Your task to perform on an android device: turn off priority inbox in the gmail app Image 0: 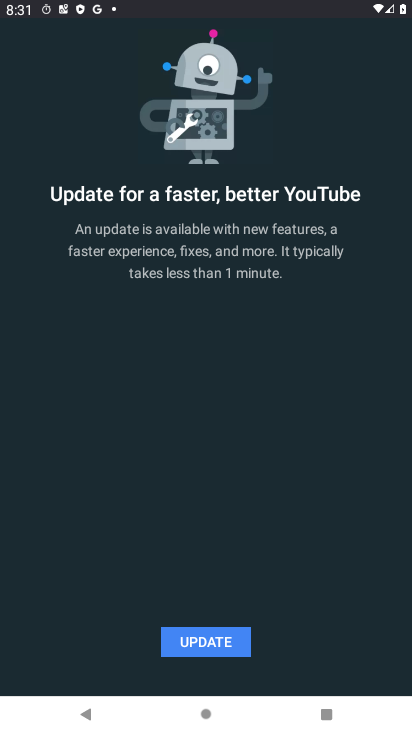
Step 0: press back button
Your task to perform on an android device: turn off priority inbox in the gmail app Image 1: 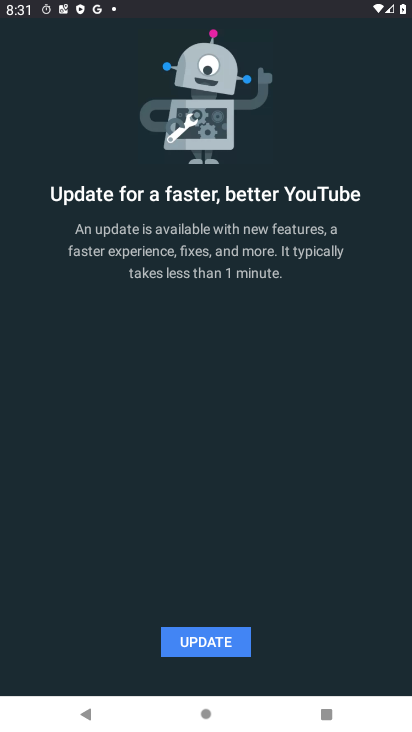
Step 1: press back button
Your task to perform on an android device: turn off priority inbox in the gmail app Image 2: 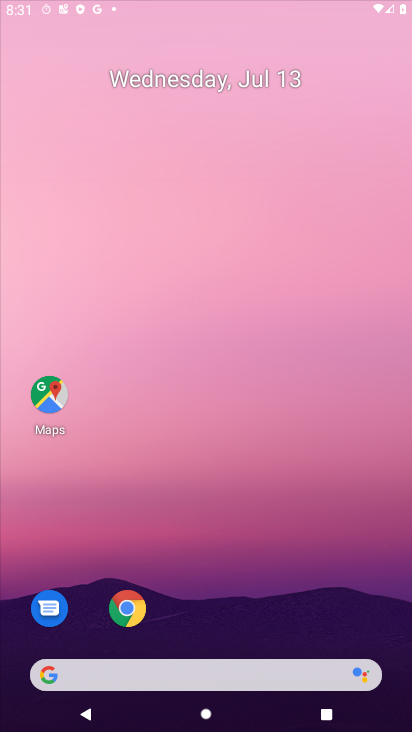
Step 2: press back button
Your task to perform on an android device: turn off priority inbox in the gmail app Image 3: 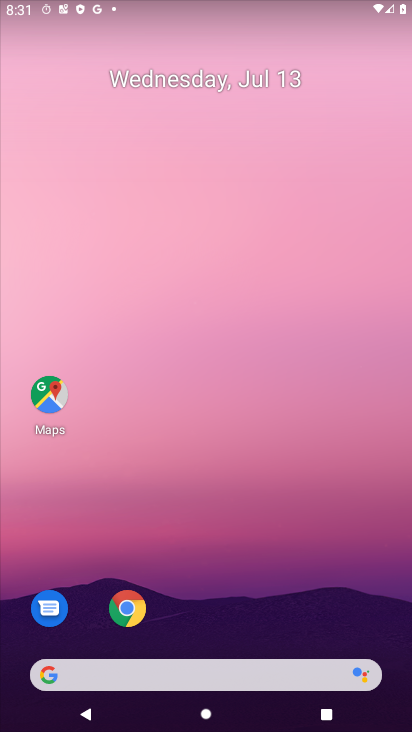
Step 3: drag from (246, 296) to (245, 54)
Your task to perform on an android device: turn off priority inbox in the gmail app Image 4: 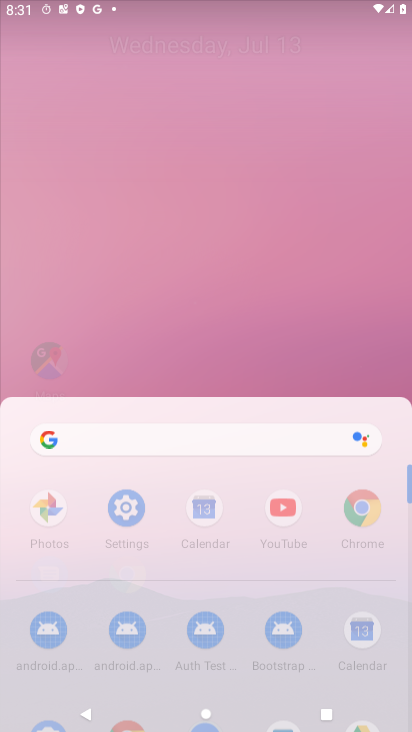
Step 4: drag from (237, 462) to (234, 124)
Your task to perform on an android device: turn off priority inbox in the gmail app Image 5: 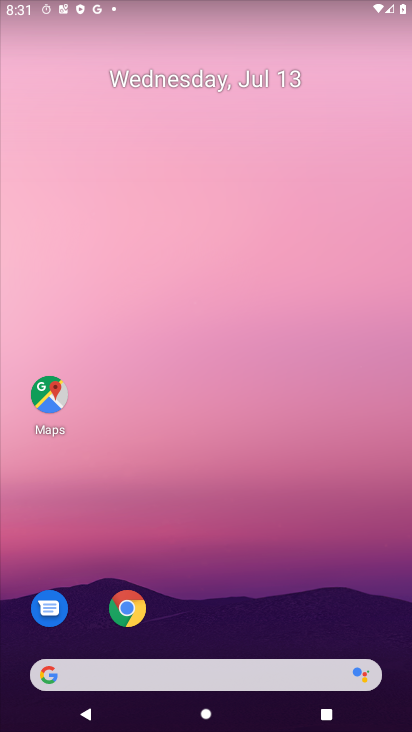
Step 5: drag from (263, 597) to (290, 120)
Your task to perform on an android device: turn off priority inbox in the gmail app Image 6: 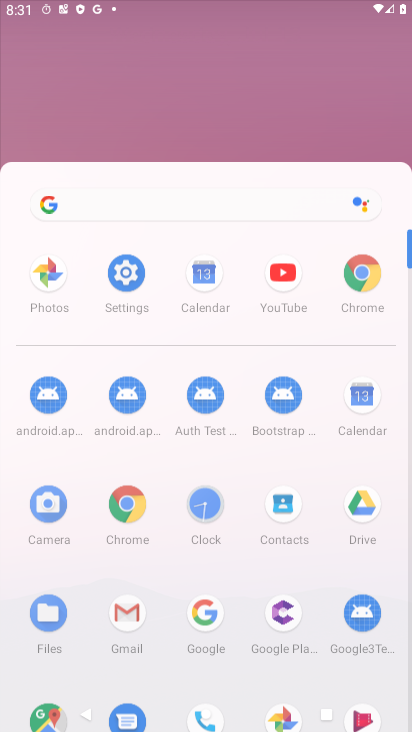
Step 6: drag from (297, 574) to (227, 169)
Your task to perform on an android device: turn off priority inbox in the gmail app Image 7: 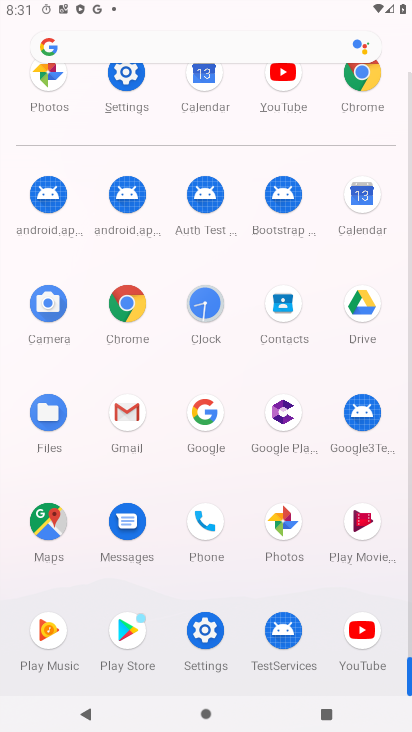
Step 7: click (126, 417)
Your task to perform on an android device: turn off priority inbox in the gmail app Image 8: 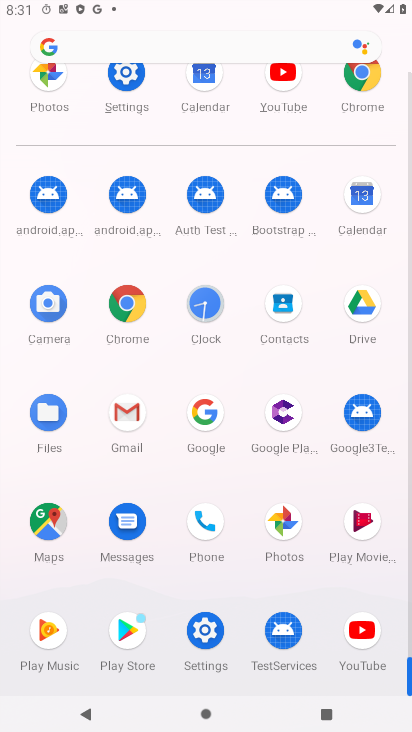
Step 8: click (126, 417)
Your task to perform on an android device: turn off priority inbox in the gmail app Image 9: 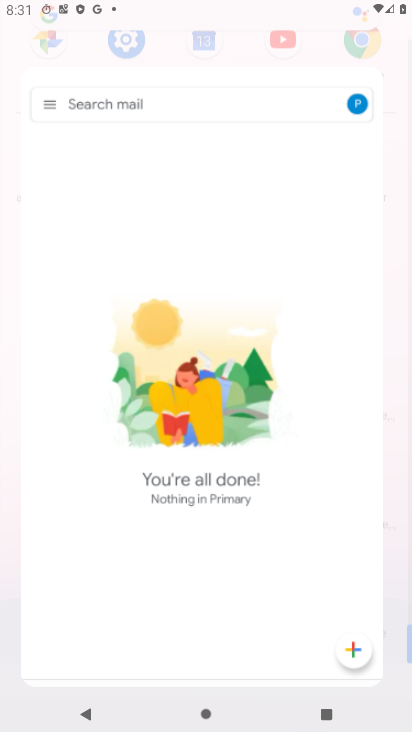
Step 9: click (126, 416)
Your task to perform on an android device: turn off priority inbox in the gmail app Image 10: 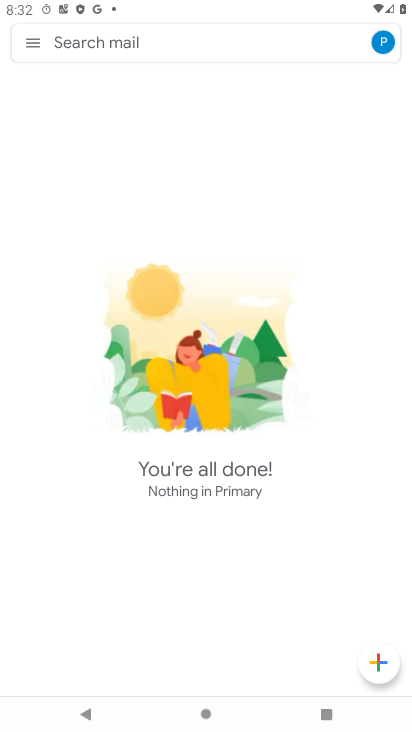
Step 10: click (45, 39)
Your task to perform on an android device: turn off priority inbox in the gmail app Image 11: 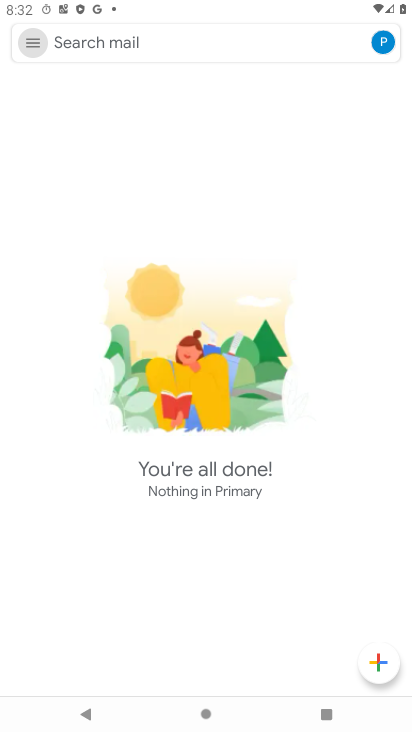
Step 11: click (45, 39)
Your task to perform on an android device: turn off priority inbox in the gmail app Image 12: 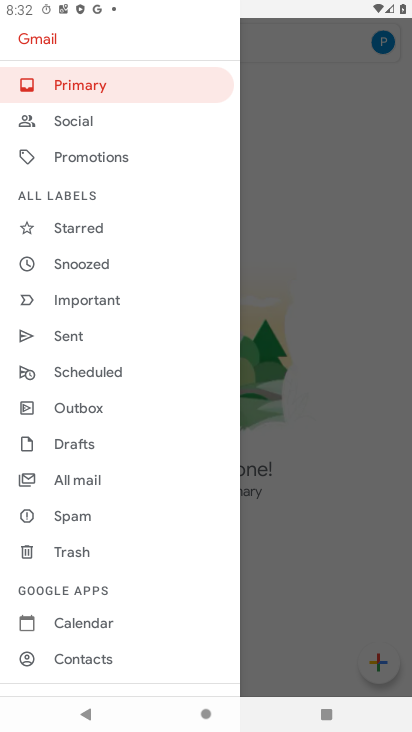
Step 12: drag from (75, 544) to (58, 320)
Your task to perform on an android device: turn off priority inbox in the gmail app Image 13: 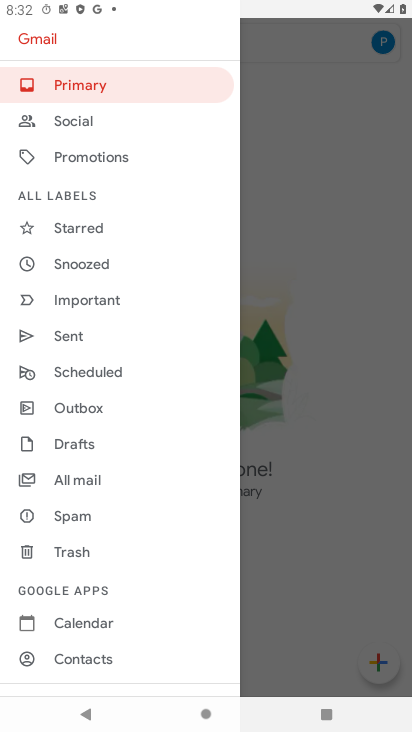
Step 13: drag from (107, 559) to (96, 181)
Your task to perform on an android device: turn off priority inbox in the gmail app Image 14: 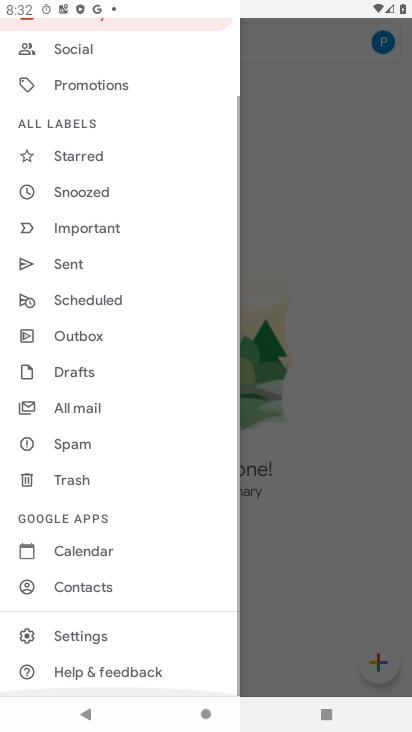
Step 14: drag from (121, 431) to (146, 216)
Your task to perform on an android device: turn off priority inbox in the gmail app Image 15: 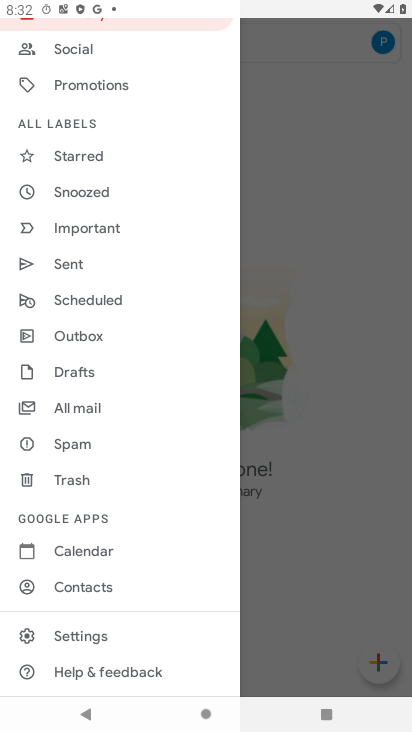
Step 15: click (80, 637)
Your task to perform on an android device: turn off priority inbox in the gmail app Image 16: 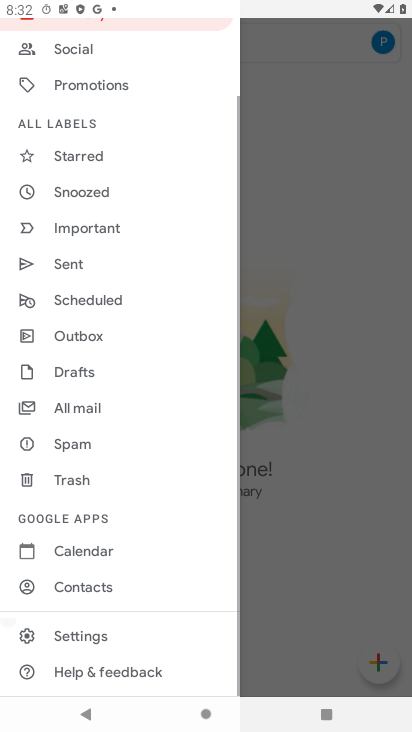
Step 16: click (80, 637)
Your task to perform on an android device: turn off priority inbox in the gmail app Image 17: 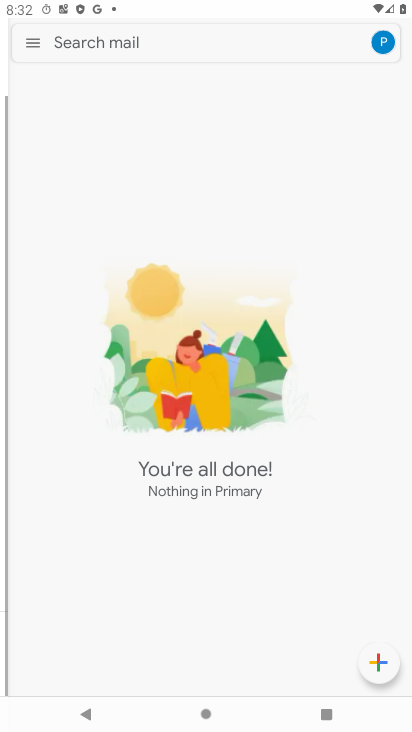
Step 17: click (80, 637)
Your task to perform on an android device: turn off priority inbox in the gmail app Image 18: 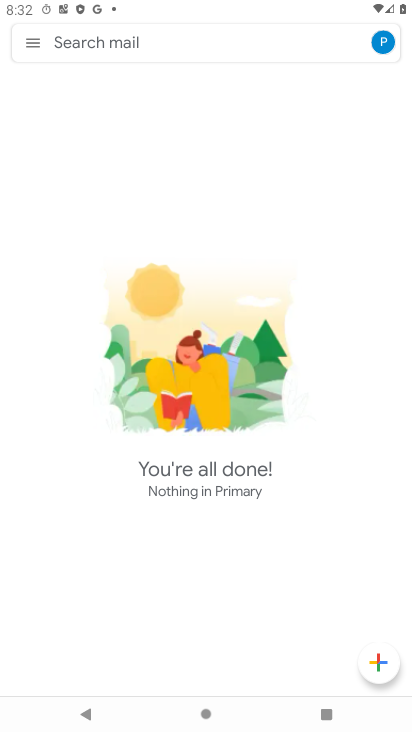
Step 18: click (80, 637)
Your task to perform on an android device: turn off priority inbox in the gmail app Image 19: 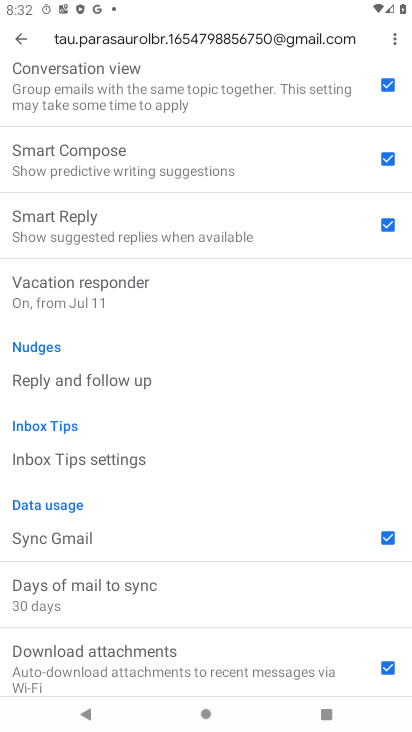
Step 19: drag from (89, 492) to (94, 228)
Your task to perform on an android device: turn off priority inbox in the gmail app Image 20: 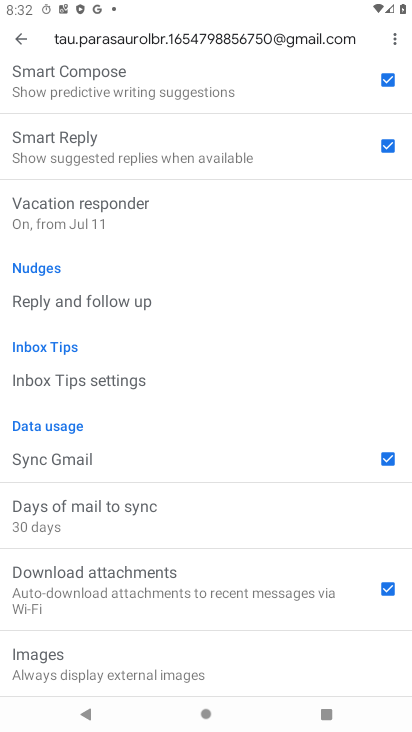
Step 20: drag from (60, 181) to (85, 452)
Your task to perform on an android device: turn off priority inbox in the gmail app Image 21: 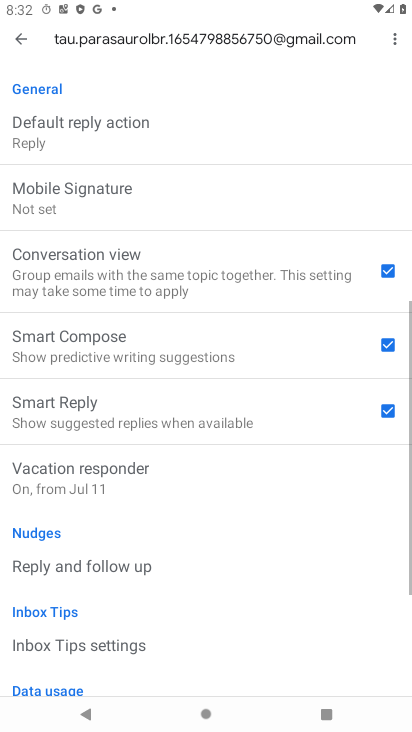
Step 21: drag from (109, 251) to (129, 562)
Your task to perform on an android device: turn off priority inbox in the gmail app Image 22: 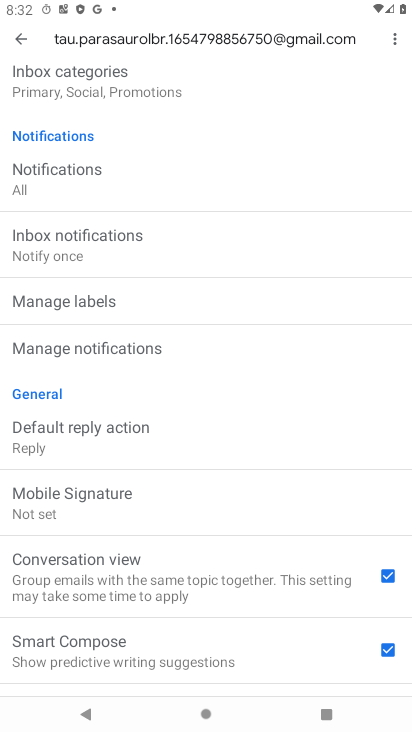
Step 22: click (52, 83)
Your task to perform on an android device: turn off priority inbox in the gmail app Image 23: 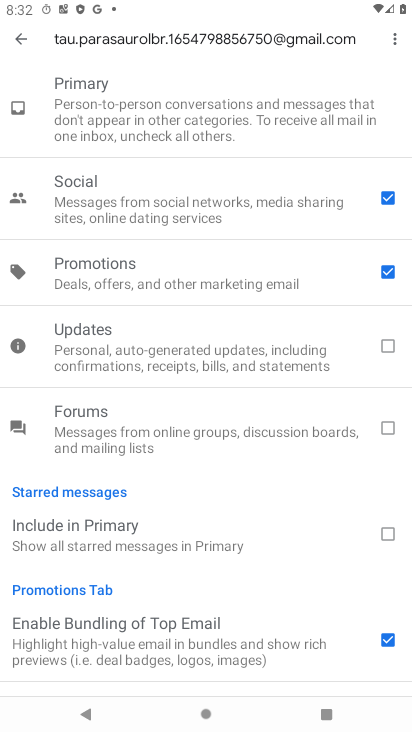
Step 23: click (22, 49)
Your task to perform on an android device: turn off priority inbox in the gmail app Image 24: 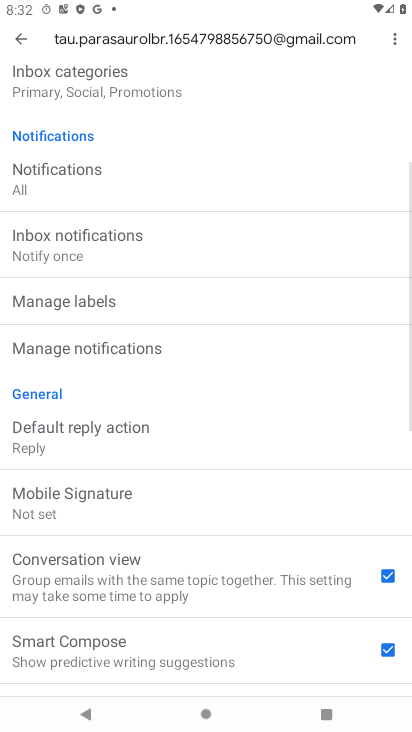
Step 24: drag from (77, 146) to (117, 502)
Your task to perform on an android device: turn off priority inbox in the gmail app Image 25: 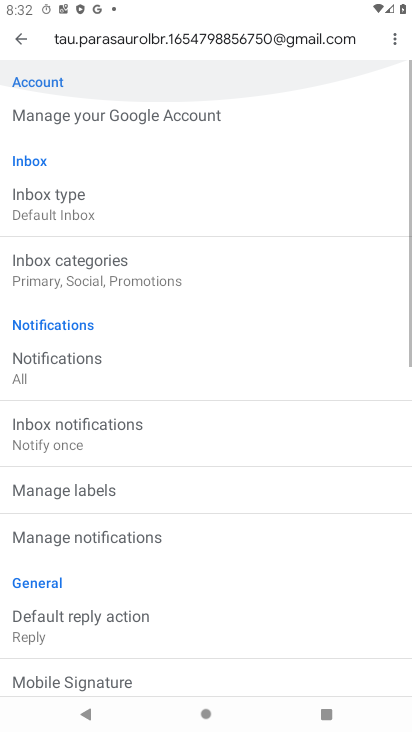
Step 25: drag from (95, 152) to (121, 411)
Your task to perform on an android device: turn off priority inbox in the gmail app Image 26: 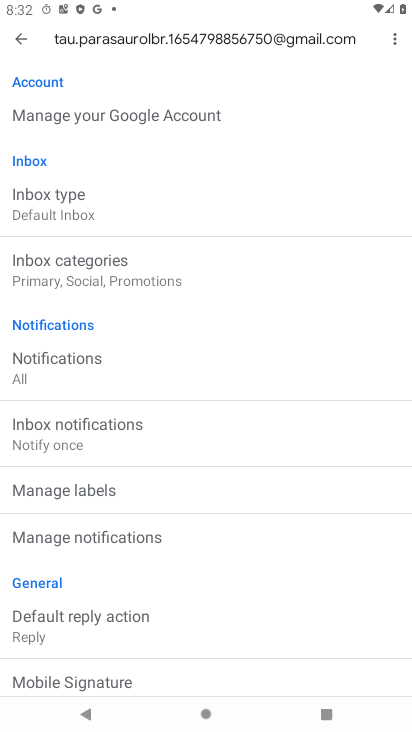
Step 26: click (53, 212)
Your task to perform on an android device: turn off priority inbox in the gmail app Image 27: 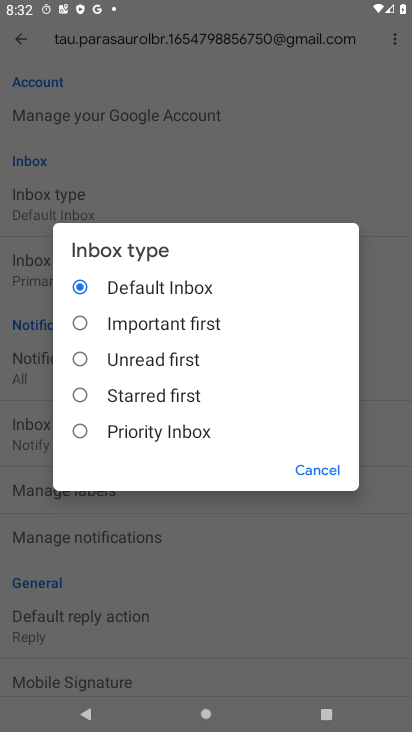
Step 27: click (324, 470)
Your task to perform on an android device: turn off priority inbox in the gmail app Image 28: 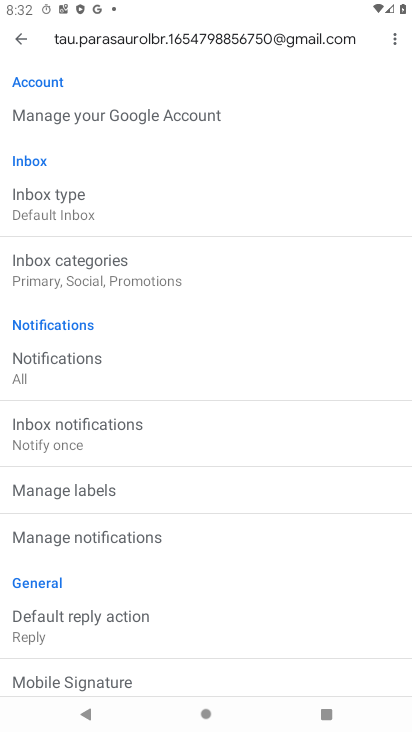
Step 28: task complete